Your task to perform on an android device: open device folders in google photos Image 0: 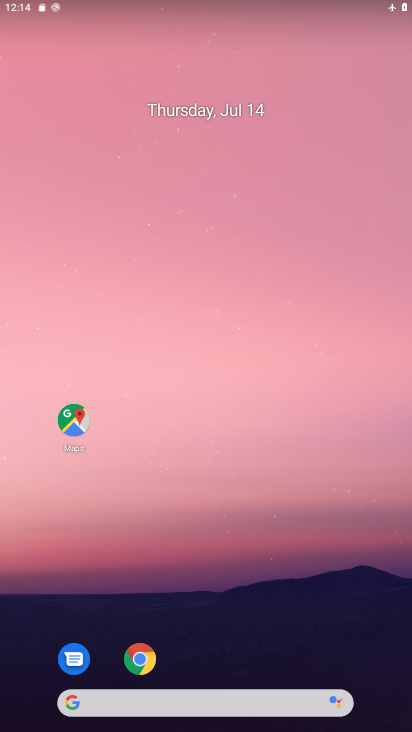
Step 0: drag from (294, 634) to (349, 51)
Your task to perform on an android device: open device folders in google photos Image 1: 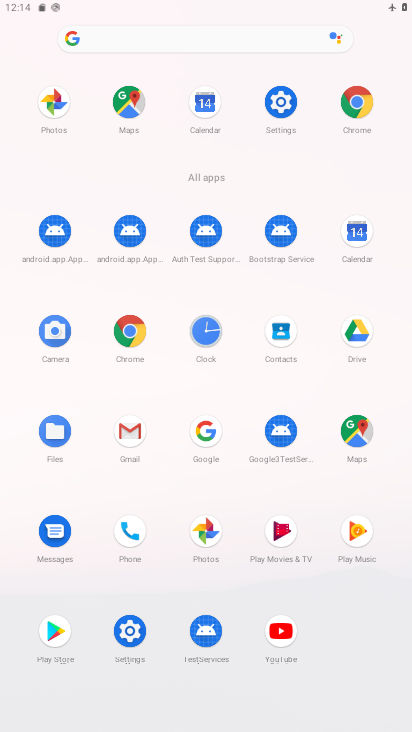
Step 1: click (204, 526)
Your task to perform on an android device: open device folders in google photos Image 2: 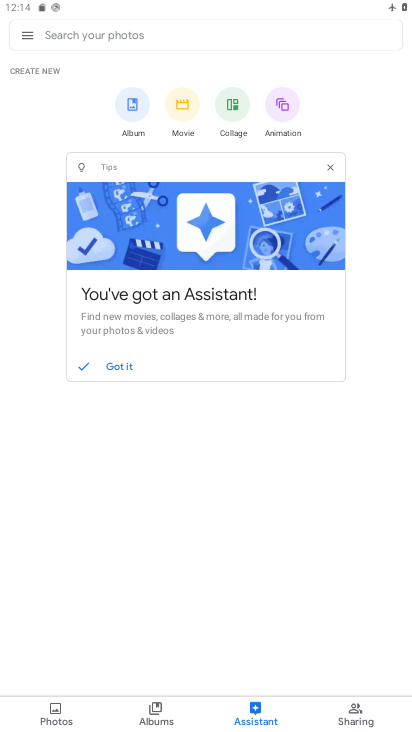
Step 2: click (23, 31)
Your task to perform on an android device: open device folders in google photos Image 3: 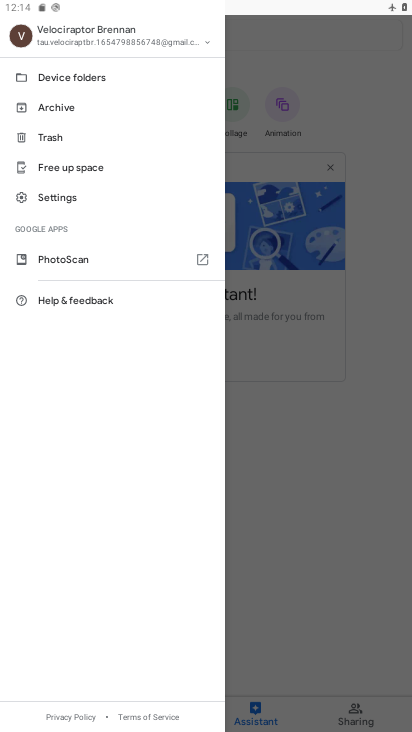
Step 3: click (88, 83)
Your task to perform on an android device: open device folders in google photos Image 4: 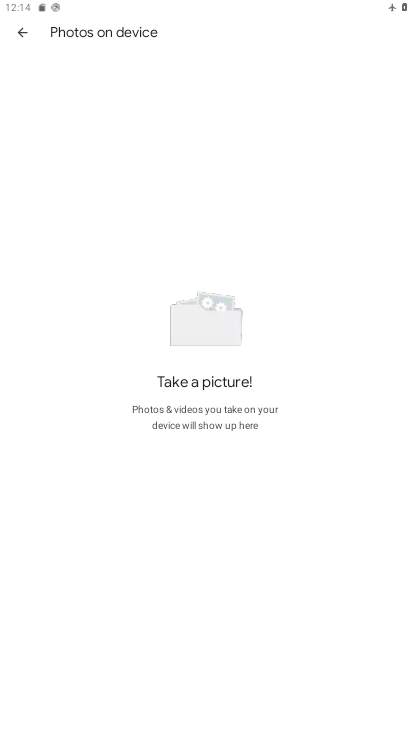
Step 4: task complete